Your task to perform on an android device: turn off priority inbox in the gmail app Image 0: 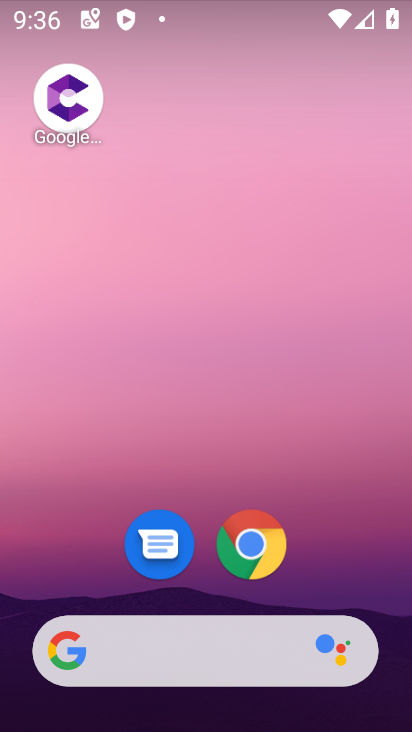
Step 0: drag from (252, 528) to (385, 488)
Your task to perform on an android device: turn off priority inbox in the gmail app Image 1: 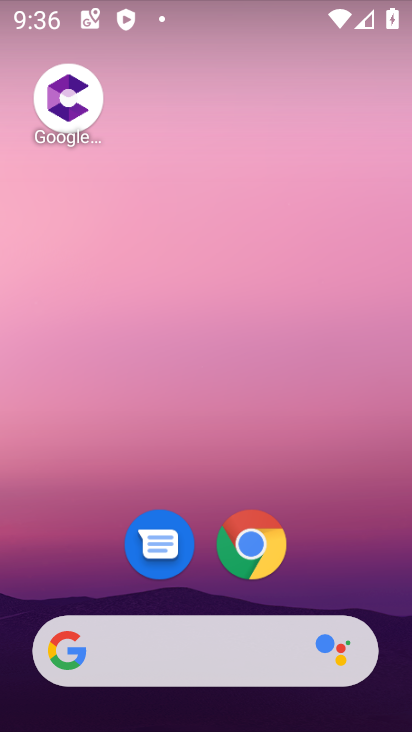
Step 1: drag from (244, 604) to (324, 11)
Your task to perform on an android device: turn off priority inbox in the gmail app Image 2: 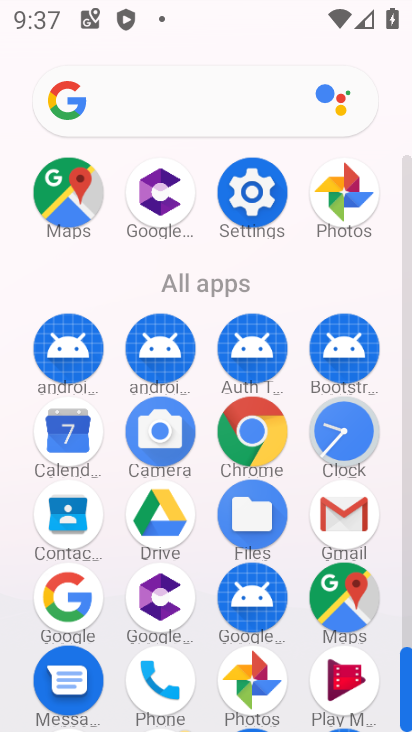
Step 2: click (330, 513)
Your task to perform on an android device: turn off priority inbox in the gmail app Image 3: 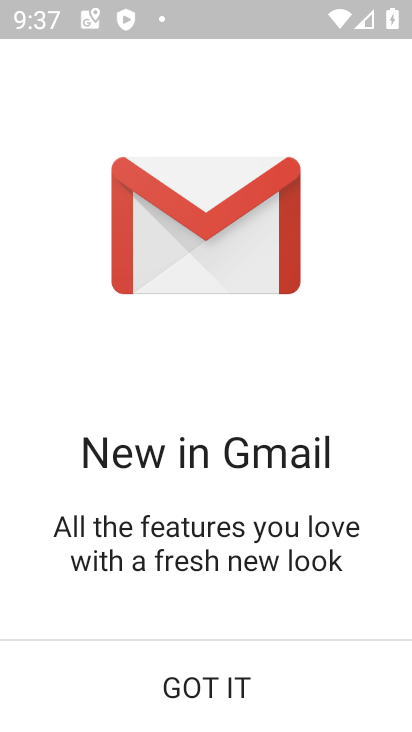
Step 3: click (260, 685)
Your task to perform on an android device: turn off priority inbox in the gmail app Image 4: 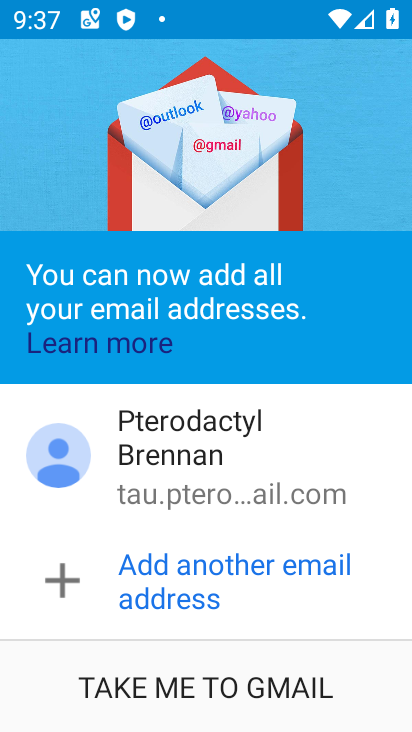
Step 4: click (262, 679)
Your task to perform on an android device: turn off priority inbox in the gmail app Image 5: 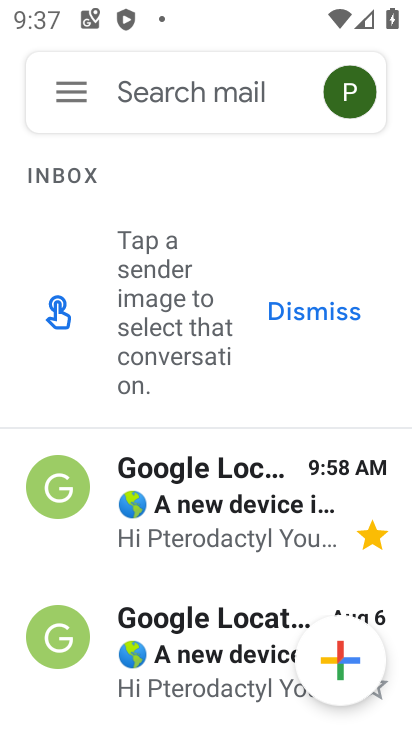
Step 5: click (80, 92)
Your task to perform on an android device: turn off priority inbox in the gmail app Image 6: 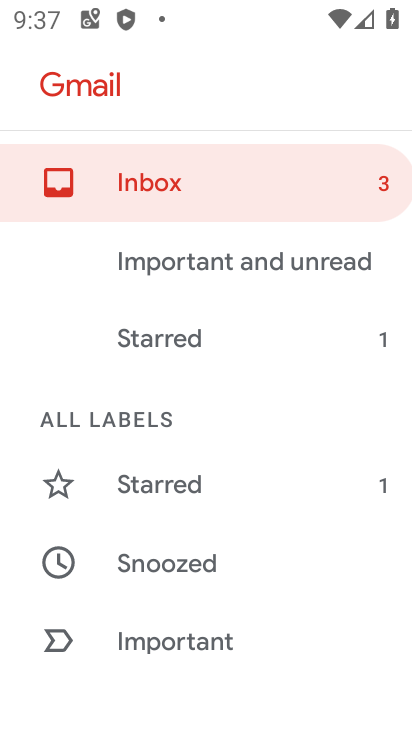
Step 6: drag from (168, 516) to (169, 38)
Your task to perform on an android device: turn off priority inbox in the gmail app Image 7: 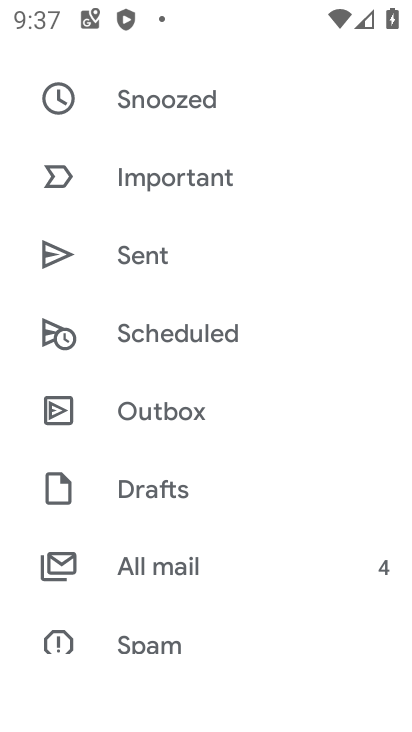
Step 7: drag from (213, 522) to (272, 11)
Your task to perform on an android device: turn off priority inbox in the gmail app Image 8: 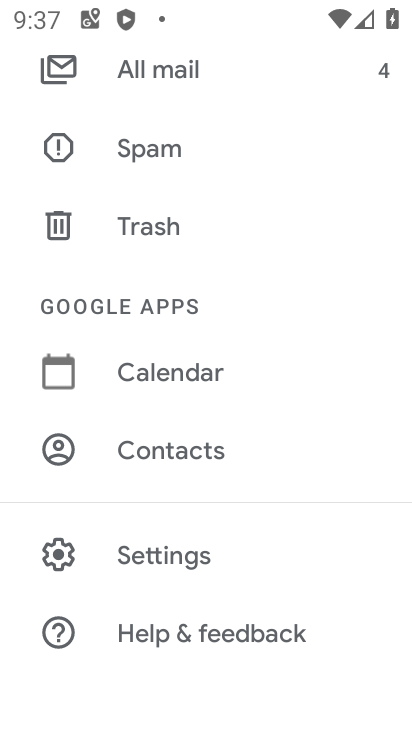
Step 8: click (157, 557)
Your task to perform on an android device: turn off priority inbox in the gmail app Image 9: 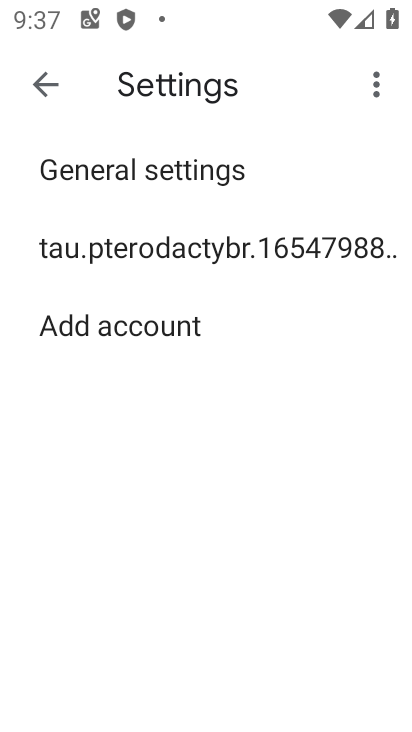
Step 9: click (171, 239)
Your task to perform on an android device: turn off priority inbox in the gmail app Image 10: 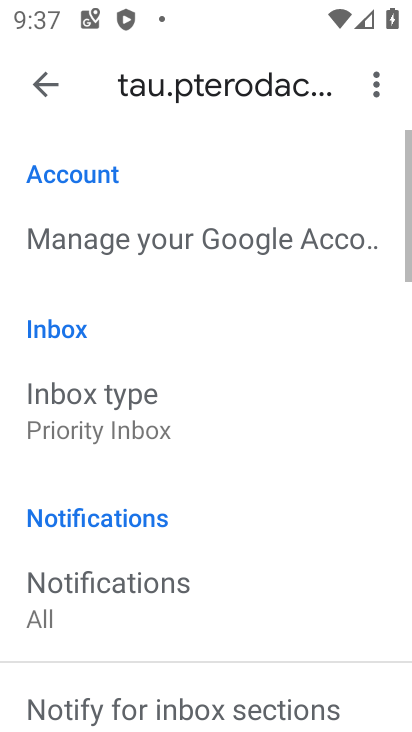
Step 10: click (156, 409)
Your task to perform on an android device: turn off priority inbox in the gmail app Image 11: 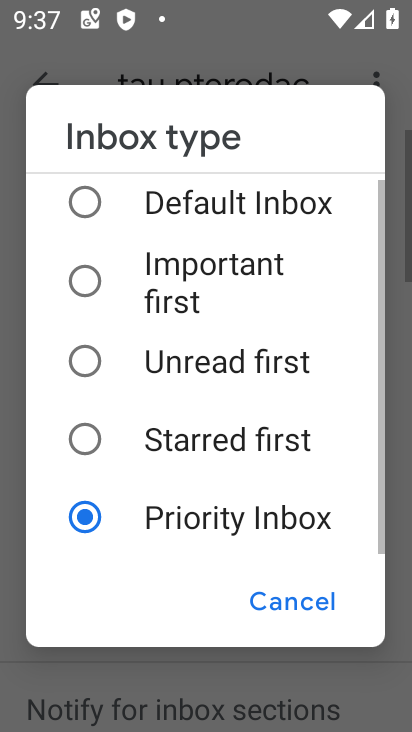
Step 11: click (136, 199)
Your task to perform on an android device: turn off priority inbox in the gmail app Image 12: 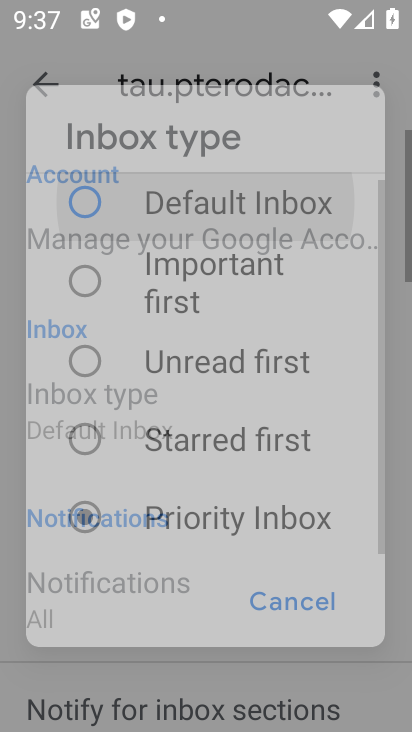
Step 12: task complete